Your task to perform on an android device: Turn off the flashlight Image 0: 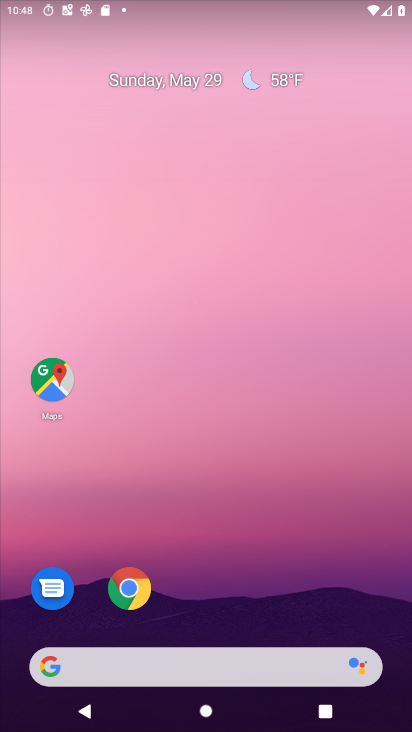
Step 0: drag from (178, 608) to (193, 37)
Your task to perform on an android device: Turn off the flashlight Image 1: 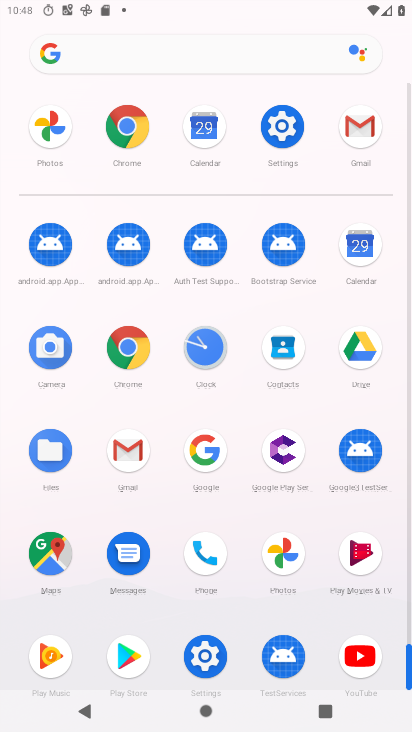
Step 1: task complete